Your task to perform on an android device: Open the calendar and show me this week's events? Image 0: 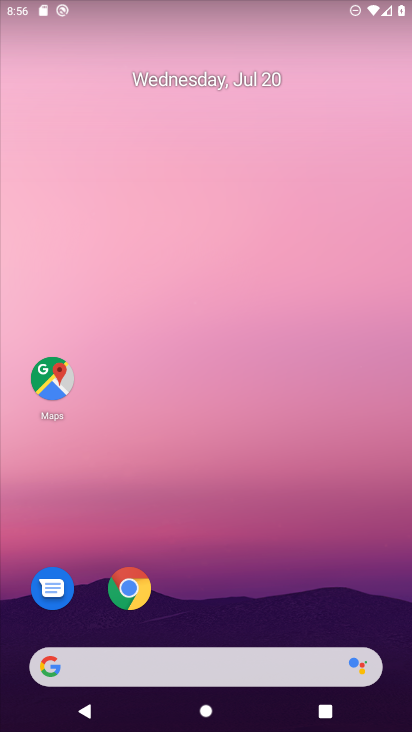
Step 0: click (192, 89)
Your task to perform on an android device: Open the calendar and show me this week's events? Image 1: 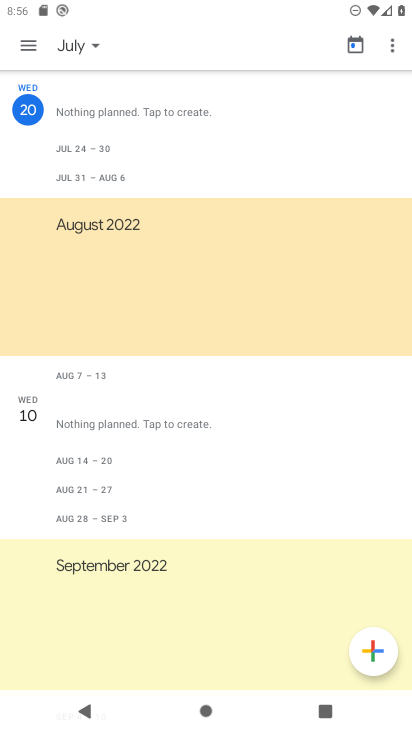
Step 1: click (33, 47)
Your task to perform on an android device: Open the calendar and show me this week's events? Image 2: 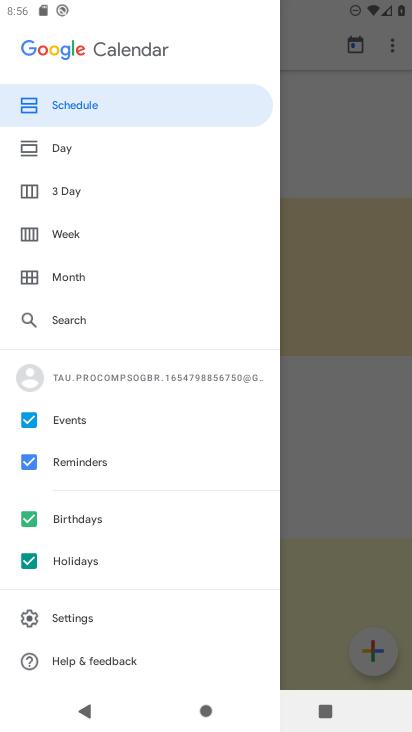
Step 2: click (28, 461)
Your task to perform on an android device: Open the calendar and show me this week's events? Image 3: 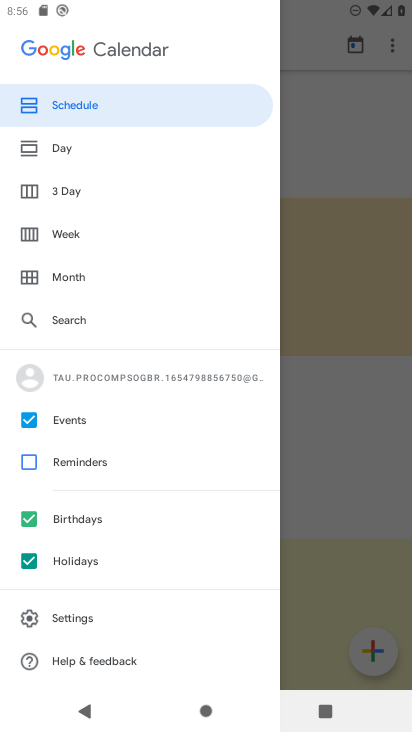
Step 3: click (39, 517)
Your task to perform on an android device: Open the calendar and show me this week's events? Image 4: 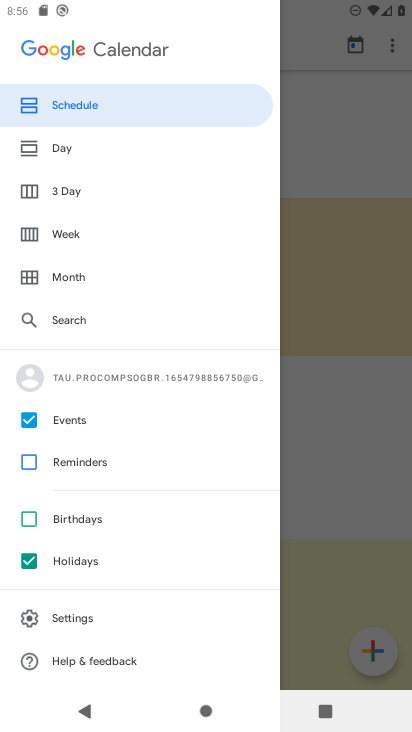
Step 4: click (26, 563)
Your task to perform on an android device: Open the calendar and show me this week's events? Image 5: 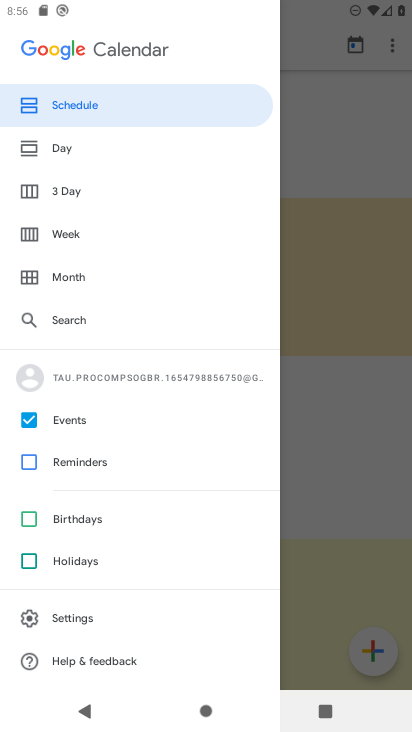
Step 5: click (74, 246)
Your task to perform on an android device: Open the calendar and show me this week's events? Image 6: 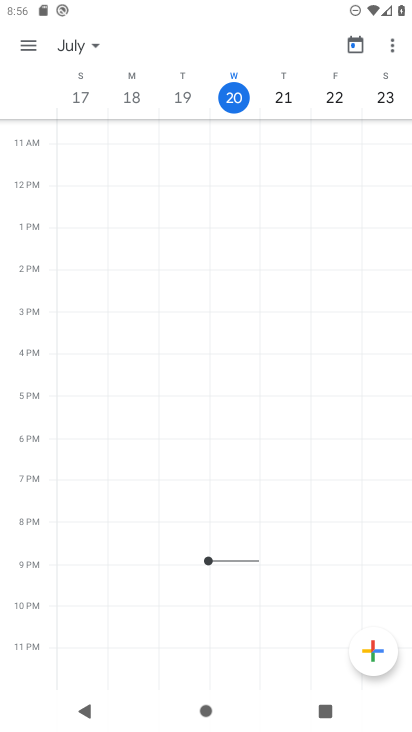
Step 6: task complete